Your task to perform on an android device: Open Google Chrome and open the bookmarks view Image 0: 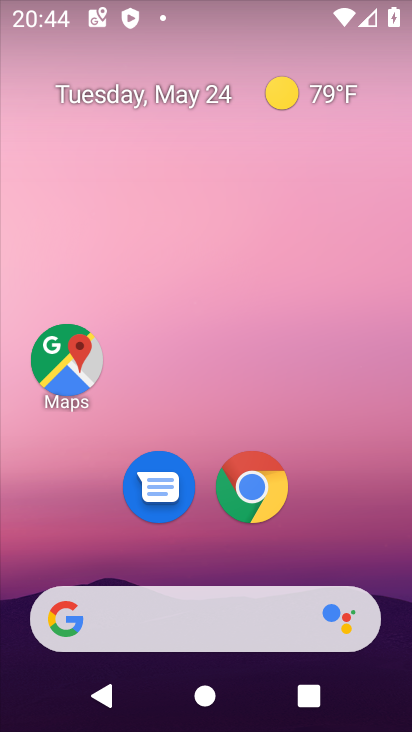
Step 0: click (222, 499)
Your task to perform on an android device: Open Google Chrome and open the bookmarks view Image 1: 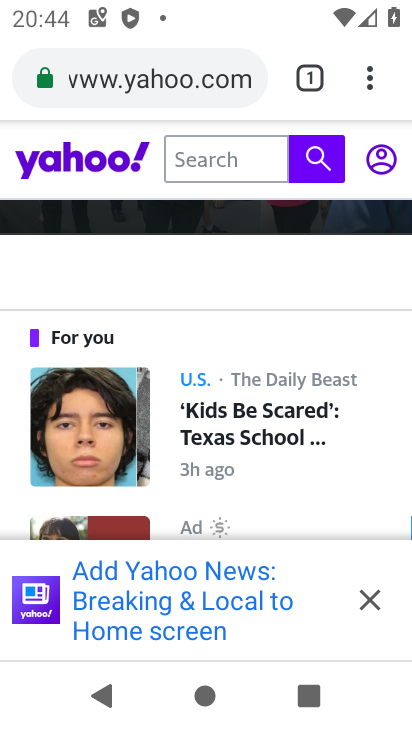
Step 1: task complete